Your task to perform on an android device: Show me popular videos on Youtube Image 0: 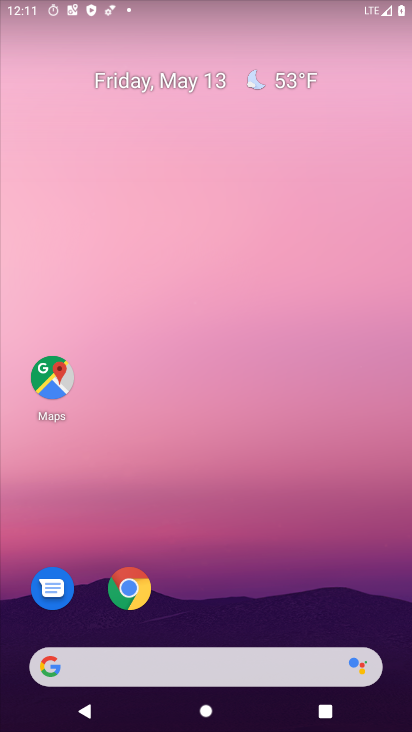
Step 0: drag from (225, 535) to (259, 82)
Your task to perform on an android device: Show me popular videos on Youtube Image 1: 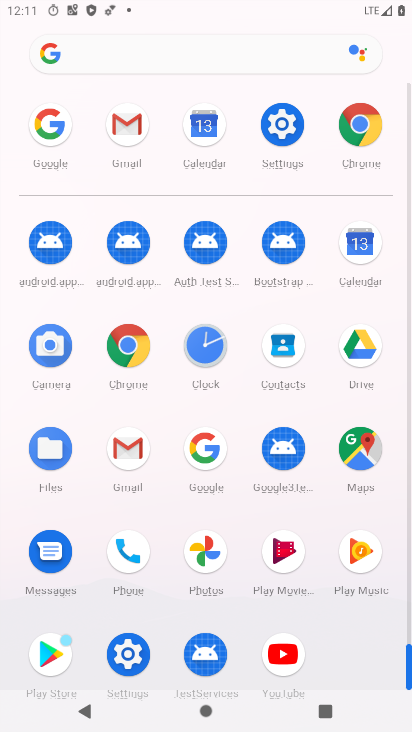
Step 1: click (293, 650)
Your task to perform on an android device: Show me popular videos on Youtube Image 2: 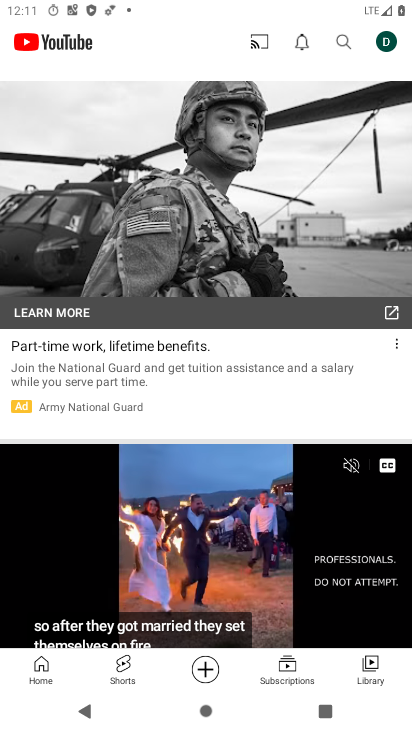
Step 2: drag from (190, 602) to (215, 259)
Your task to perform on an android device: Show me popular videos on Youtube Image 3: 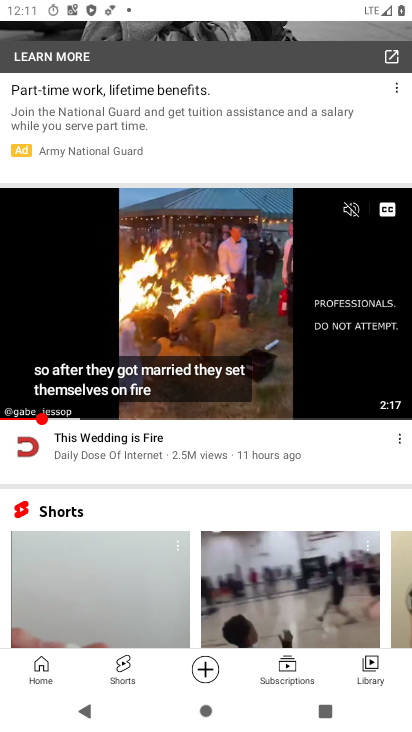
Step 3: drag from (260, 609) to (275, 208)
Your task to perform on an android device: Show me popular videos on Youtube Image 4: 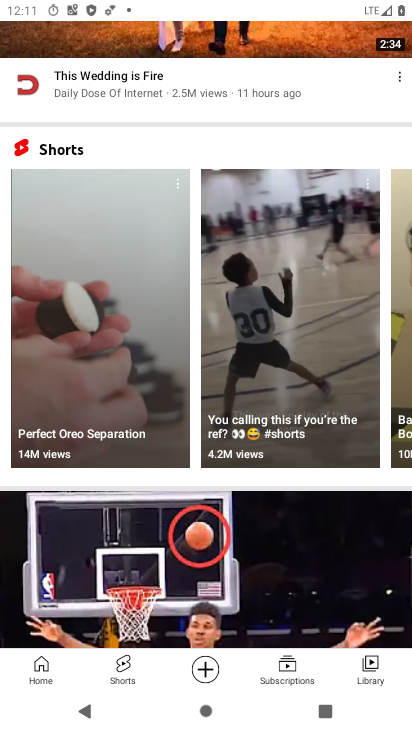
Step 4: drag from (296, 560) to (328, 106)
Your task to perform on an android device: Show me popular videos on Youtube Image 5: 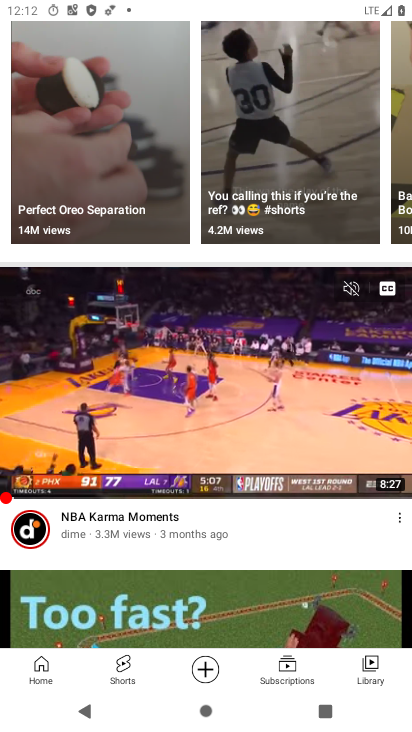
Step 5: drag from (221, 564) to (395, 730)
Your task to perform on an android device: Show me popular videos on Youtube Image 6: 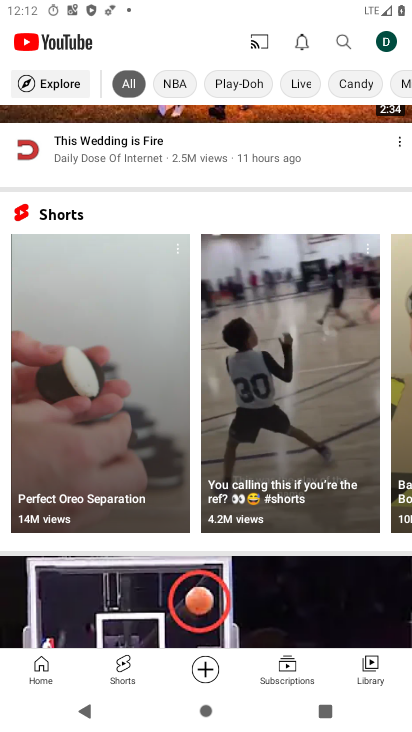
Step 6: drag from (208, 132) to (291, 724)
Your task to perform on an android device: Show me popular videos on Youtube Image 7: 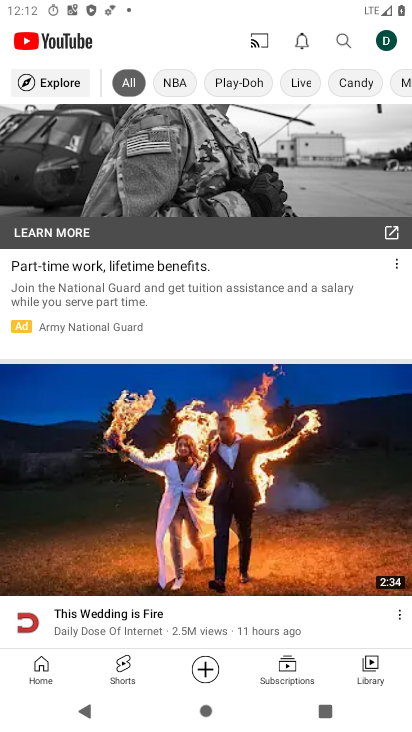
Step 7: drag from (166, 285) to (259, 722)
Your task to perform on an android device: Show me popular videos on Youtube Image 8: 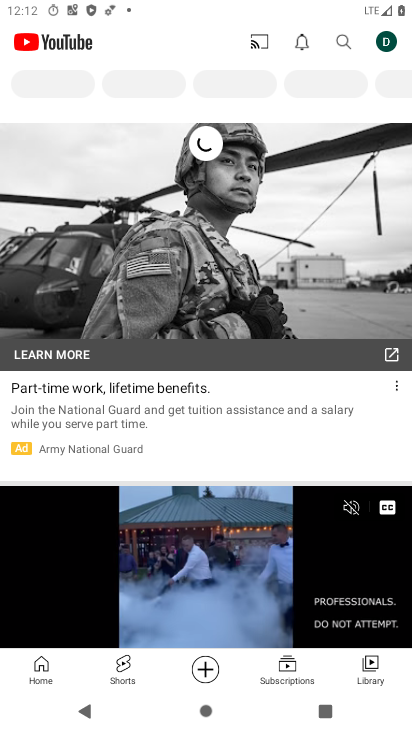
Step 8: click (54, 82)
Your task to perform on an android device: Show me popular videos on Youtube Image 9: 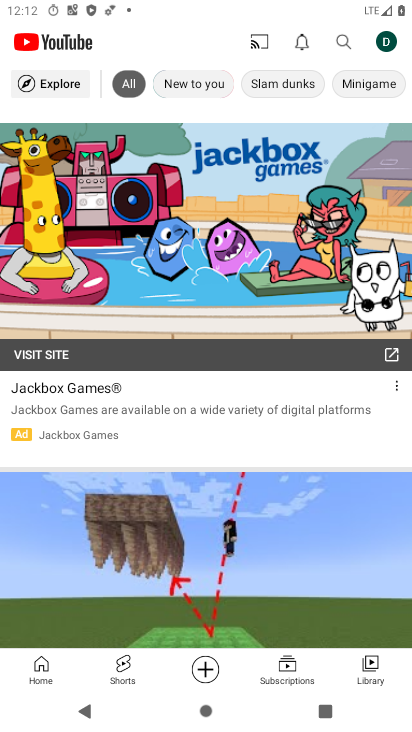
Step 9: click (54, 82)
Your task to perform on an android device: Show me popular videos on Youtube Image 10: 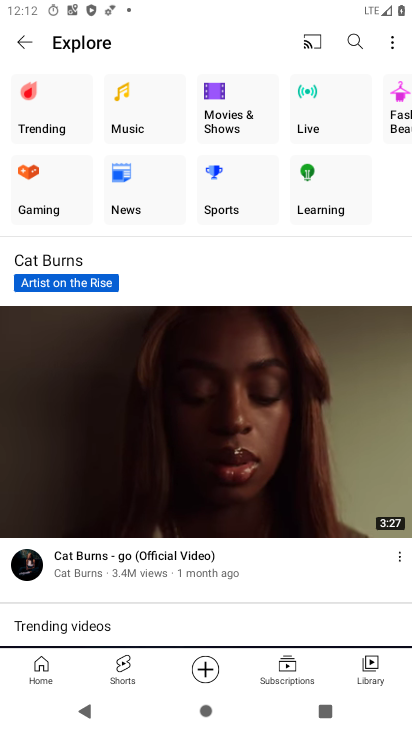
Step 10: drag from (282, 154) to (2, 251)
Your task to perform on an android device: Show me popular videos on Youtube Image 11: 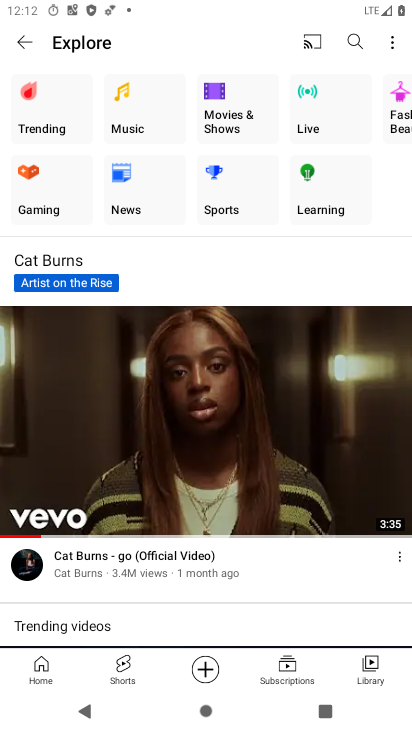
Step 11: drag from (130, 587) to (154, 355)
Your task to perform on an android device: Show me popular videos on Youtube Image 12: 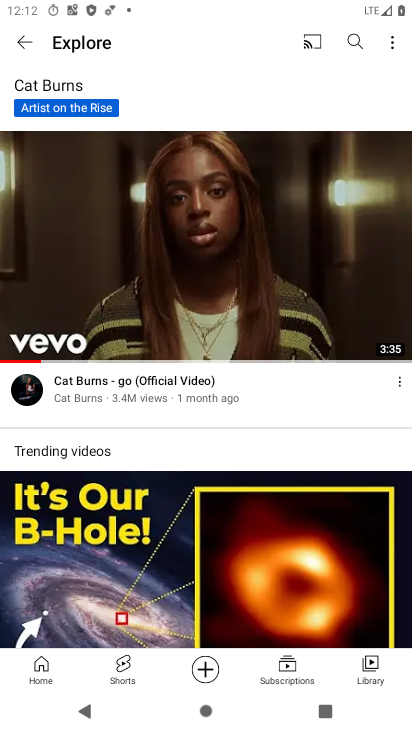
Step 12: drag from (166, 236) to (247, 570)
Your task to perform on an android device: Show me popular videos on Youtube Image 13: 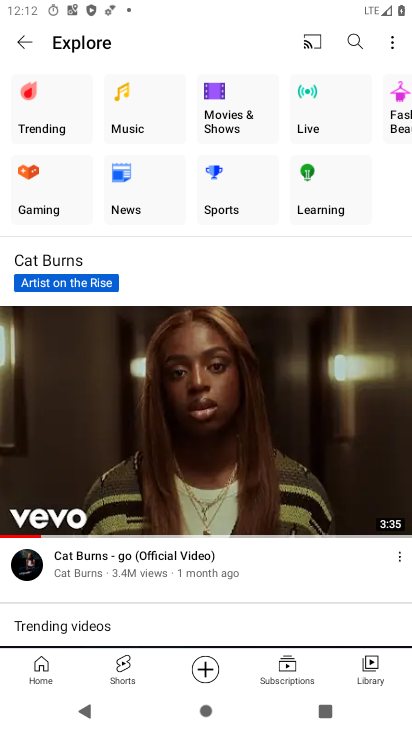
Step 13: click (51, 97)
Your task to perform on an android device: Show me popular videos on Youtube Image 14: 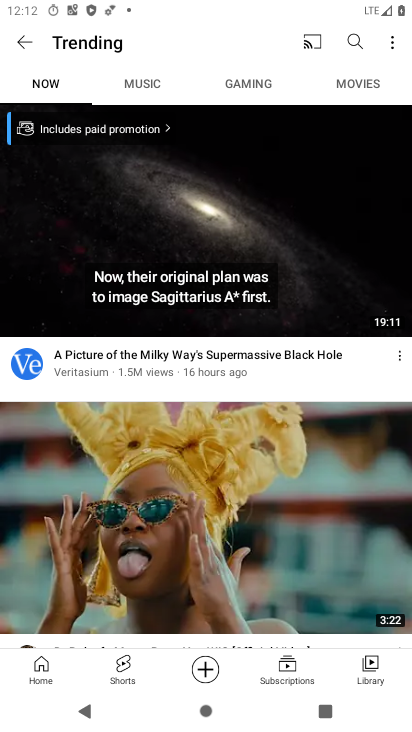
Step 14: task complete